Your task to perform on an android device: Open Wikipedia Image 0: 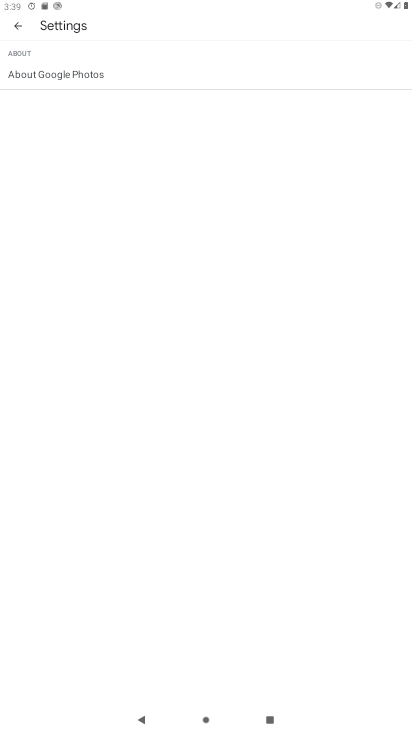
Step 0: press home button
Your task to perform on an android device: Open Wikipedia Image 1: 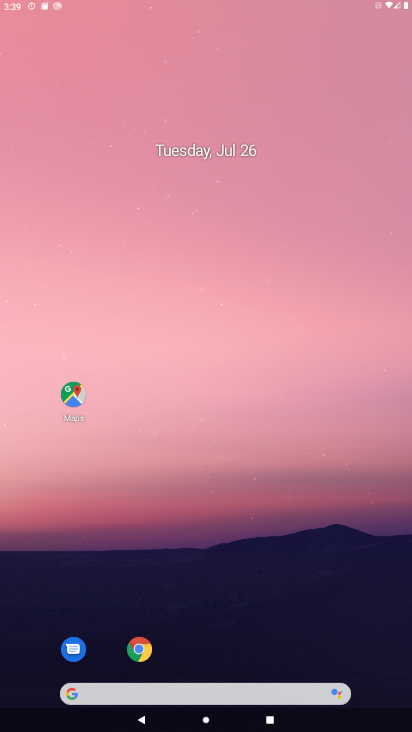
Step 1: drag from (362, 657) to (198, 32)
Your task to perform on an android device: Open Wikipedia Image 2: 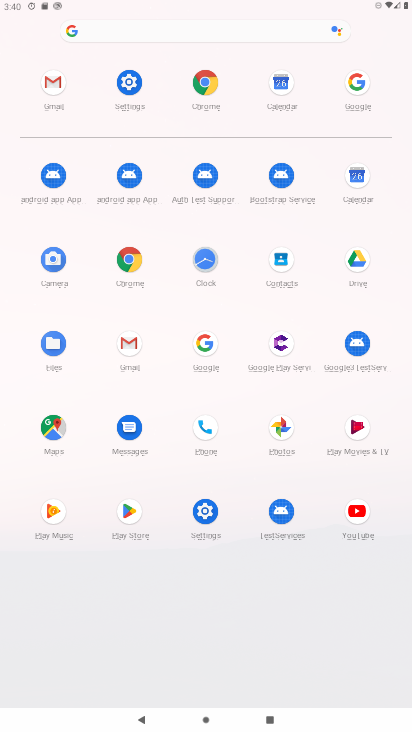
Step 2: click (206, 352)
Your task to perform on an android device: Open Wikipedia Image 3: 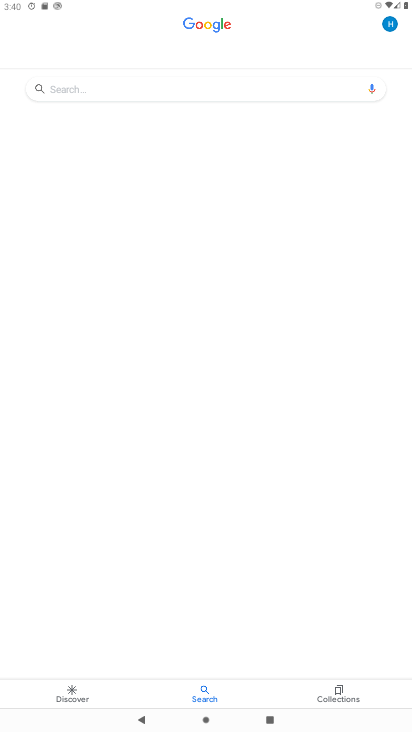
Step 3: click (53, 92)
Your task to perform on an android device: Open Wikipedia Image 4: 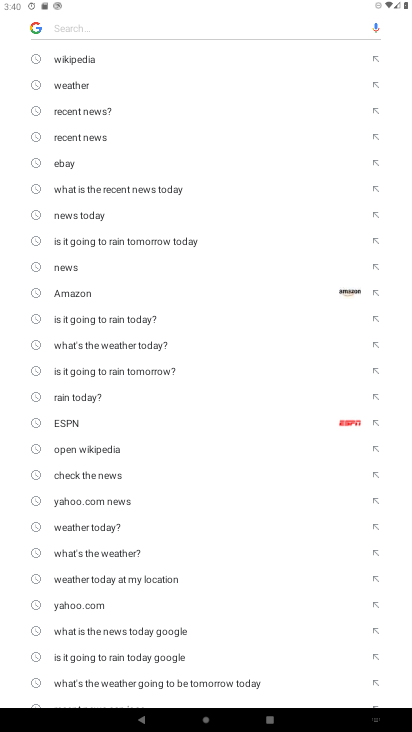
Step 4: click (117, 58)
Your task to perform on an android device: Open Wikipedia Image 5: 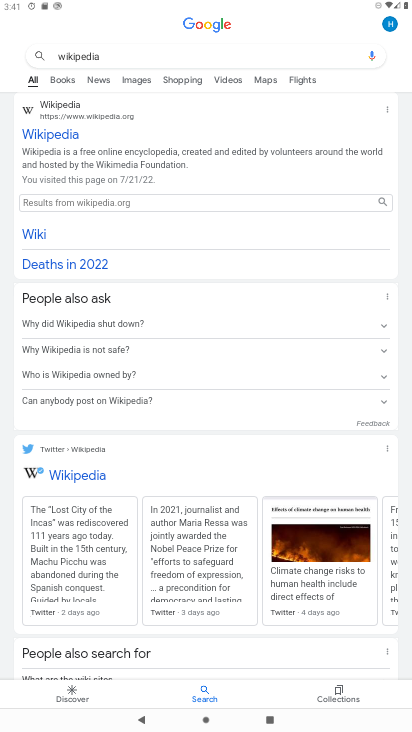
Step 5: task complete